Your task to perform on an android device: Go to Android settings Image 0: 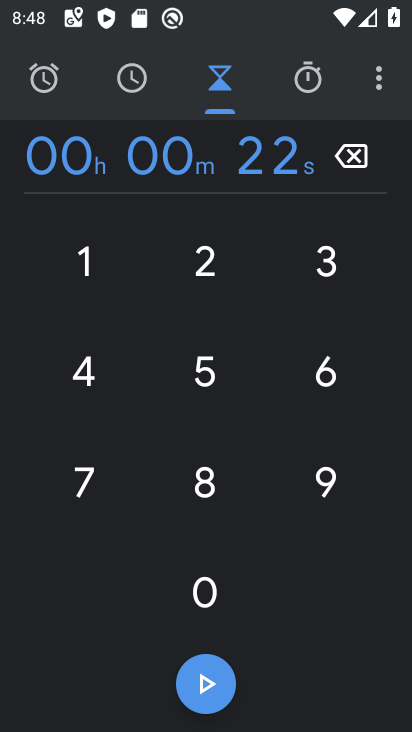
Step 0: press home button
Your task to perform on an android device: Go to Android settings Image 1: 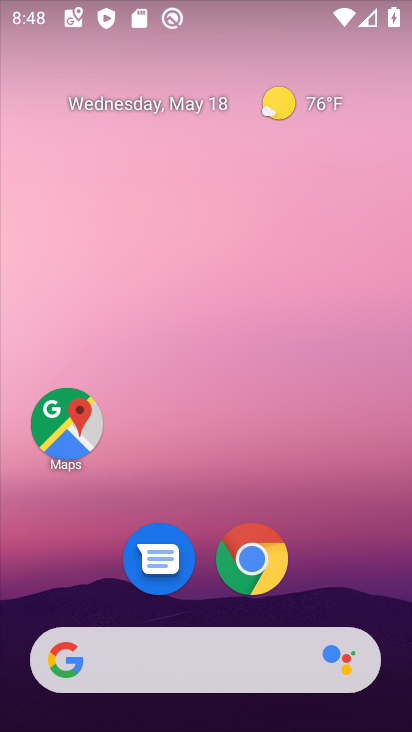
Step 1: drag from (220, 592) to (203, 76)
Your task to perform on an android device: Go to Android settings Image 2: 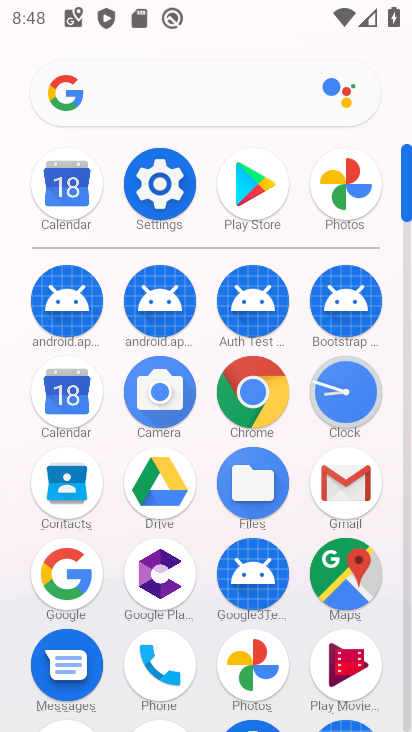
Step 2: click (167, 184)
Your task to perform on an android device: Go to Android settings Image 3: 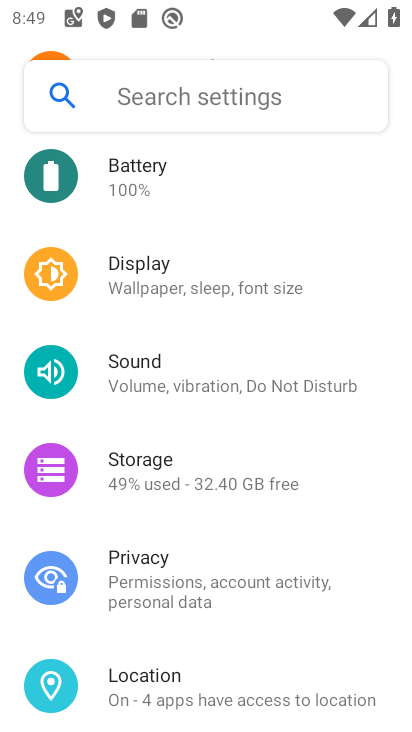
Step 3: task complete